Your task to perform on an android device: What's on my calendar tomorrow? Image 0: 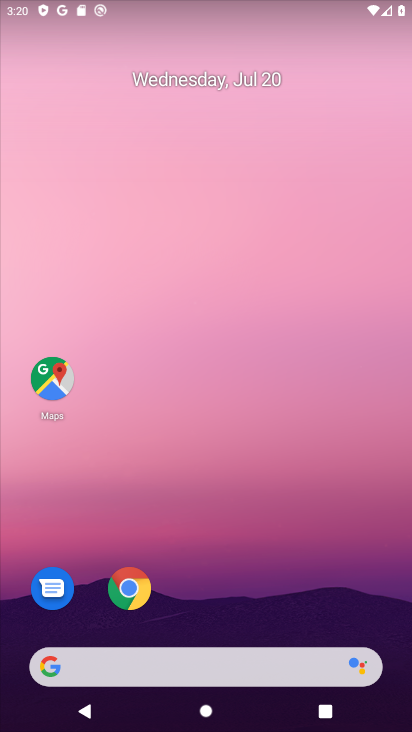
Step 0: click (217, 93)
Your task to perform on an android device: What's on my calendar tomorrow? Image 1: 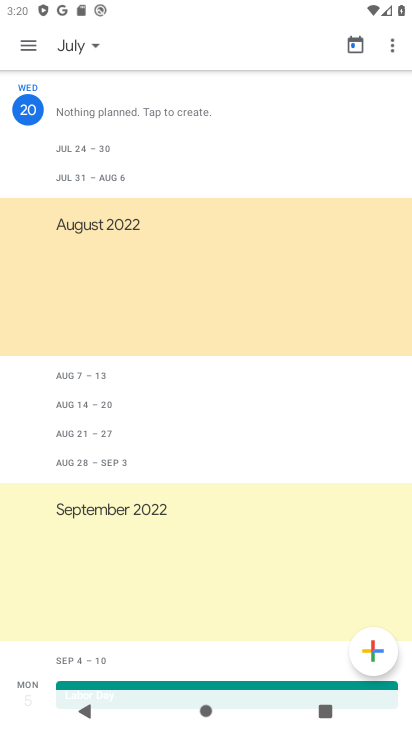
Step 1: click (72, 56)
Your task to perform on an android device: What's on my calendar tomorrow? Image 2: 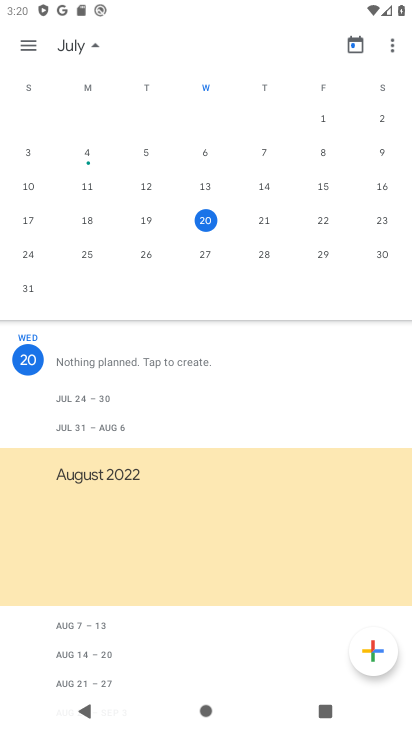
Step 2: click (271, 216)
Your task to perform on an android device: What's on my calendar tomorrow? Image 3: 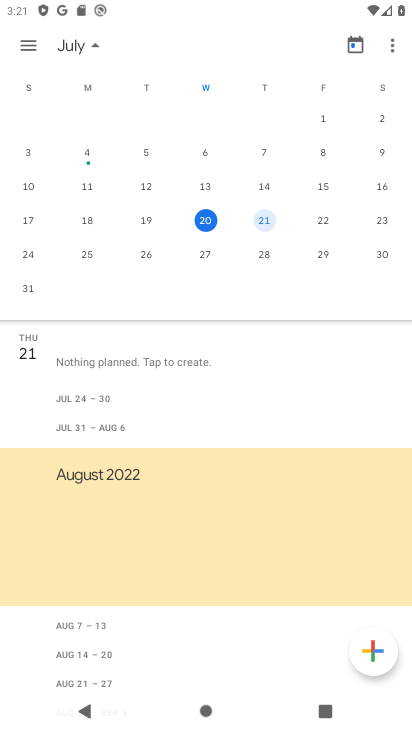
Step 3: task complete